Your task to perform on an android device: read, delete, or share a saved page in the chrome app Image 0: 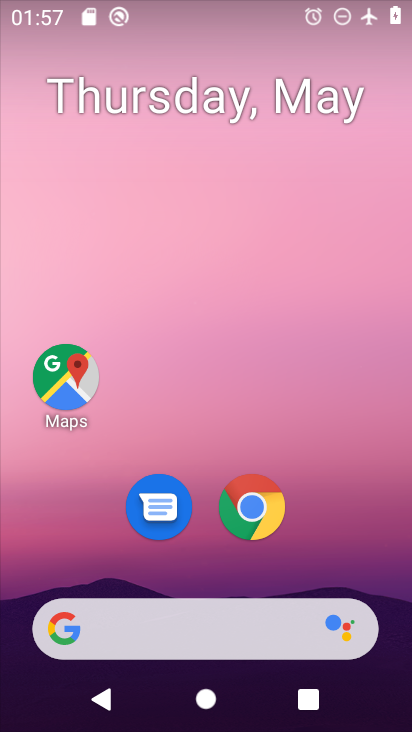
Step 0: click (269, 515)
Your task to perform on an android device: read, delete, or share a saved page in the chrome app Image 1: 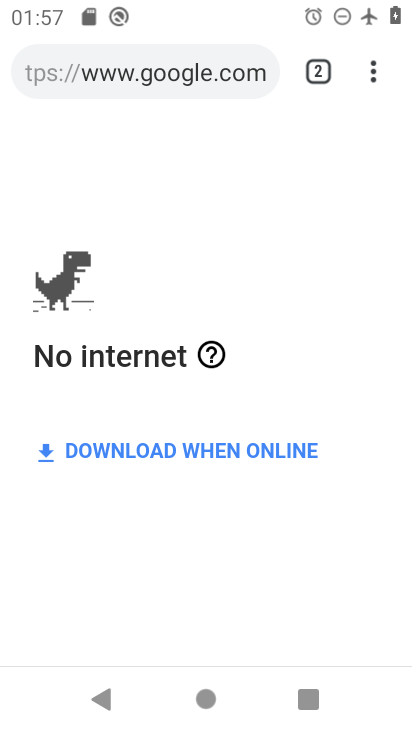
Step 1: click (375, 75)
Your task to perform on an android device: read, delete, or share a saved page in the chrome app Image 2: 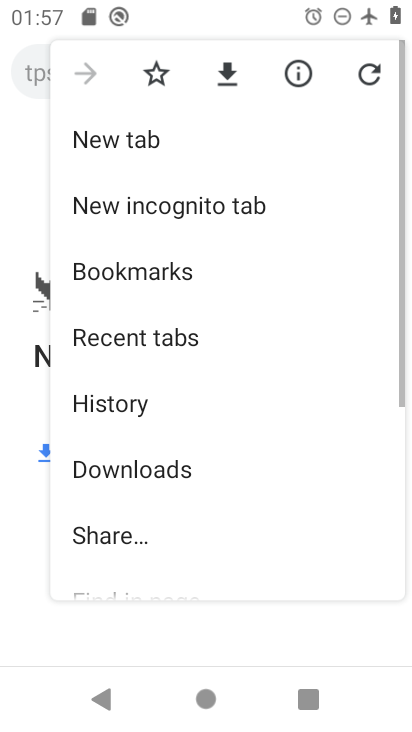
Step 2: drag from (223, 549) to (223, 358)
Your task to perform on an android device: read, delete, or share a saved page in the chrome app Image 3: 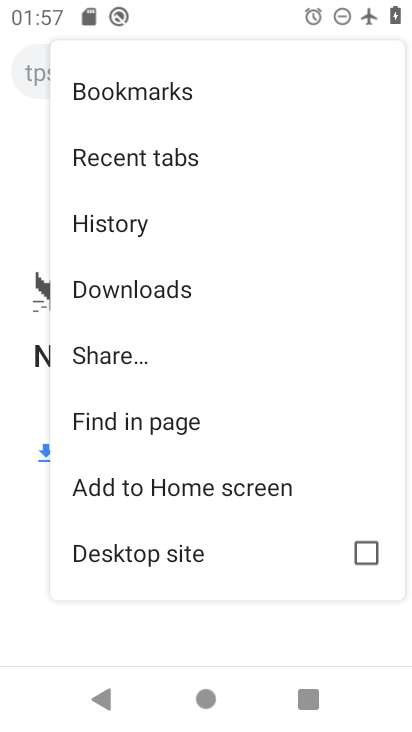
Step 3: click (205, 291)
Your task to perform on an android device: read, delete, or share a saved page in the chrome app Image 4: 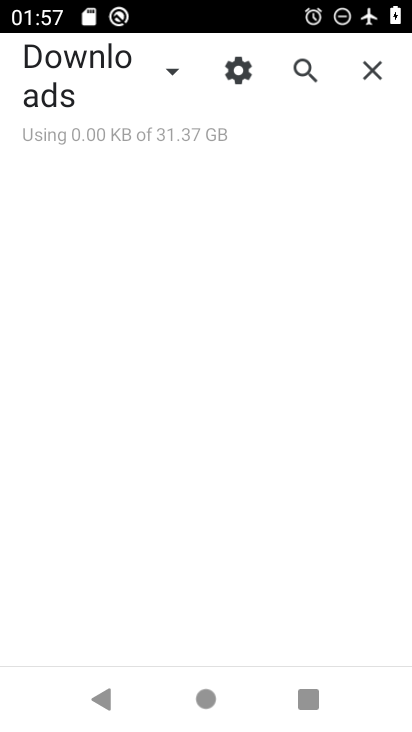
Step 4: task complete